Your task to perform on an android device: check battery use Image 0: 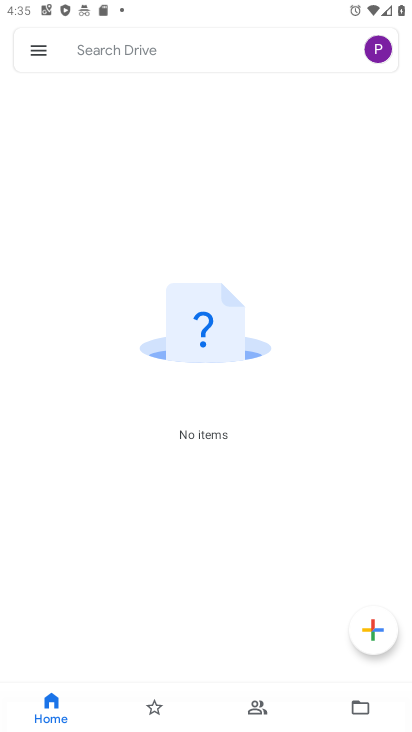
Step 0: press back button
Your task to perform on an android device: check battery use Image 1: 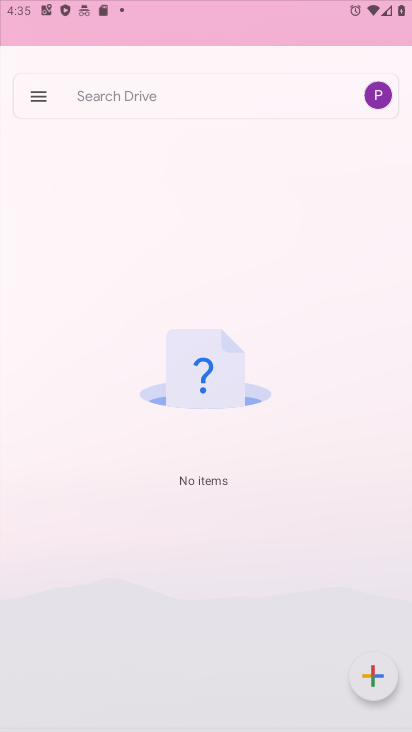
Step 1: press back button
Your task to perform on an android device: check battery use Image 2: 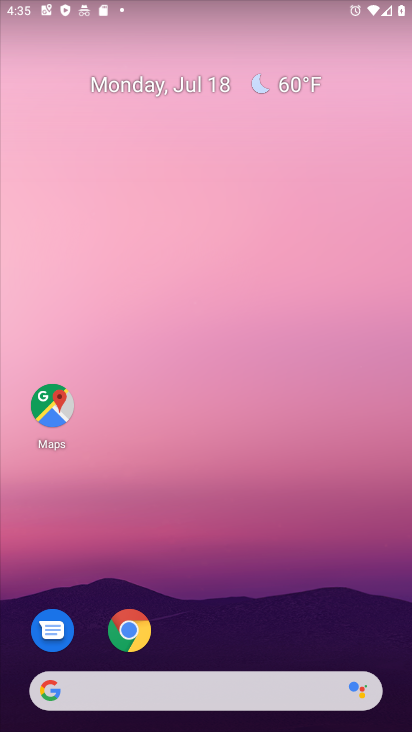
Step 2: drag from (259, 449) to (206, 196)
Your task to perform on an android device: check battery use Image 3: 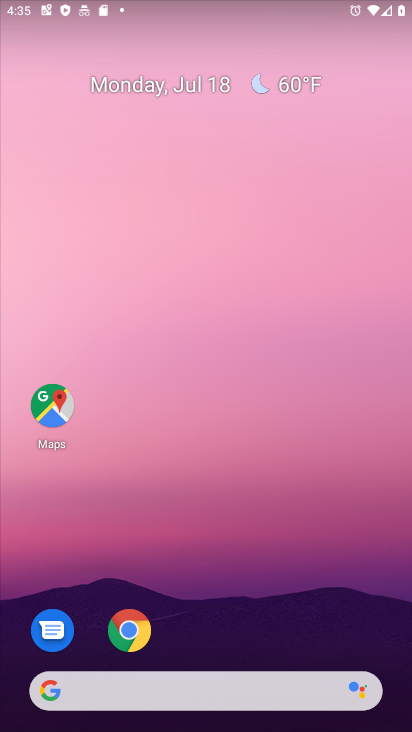
Step 3: drag from (142, 327) to (99, 141)
Your task to perform on an android device: check battery use Image 4: 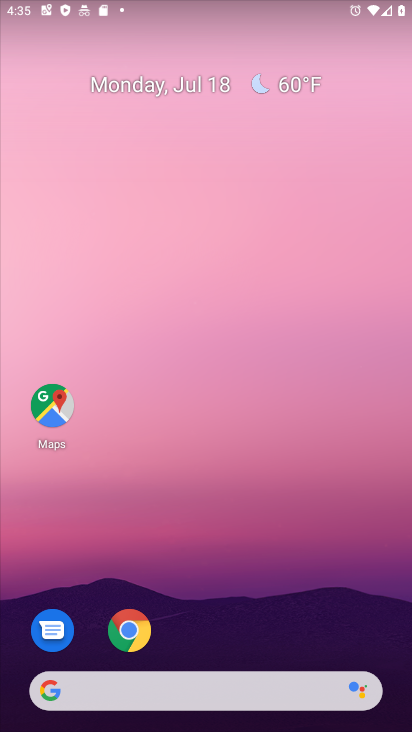
Step 4: drag from (260, 545) to (187, 76)
Your task to perform on an android device: check battery use Image 5: 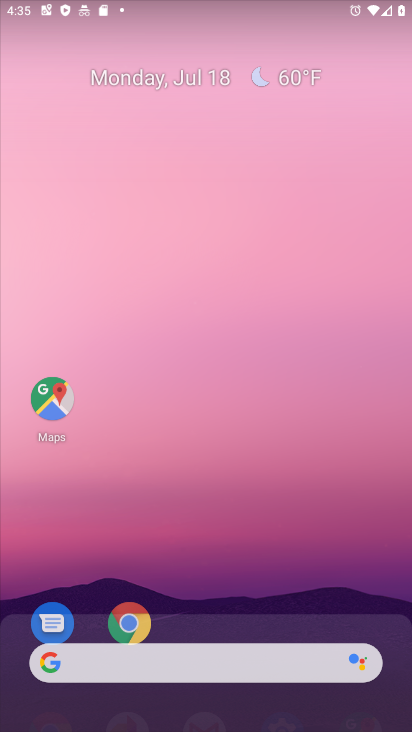
Step 5: click (192, 118)
Your task to perform on an android device: check battery use Image 6: 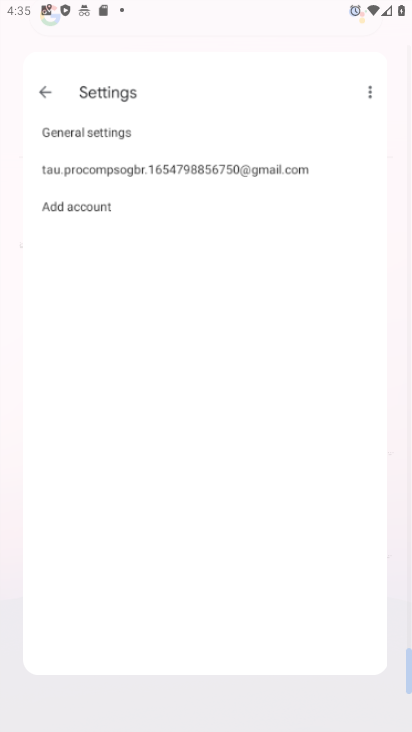
Step 6: drag from (242, 639) to (213, 177)
Your task to perform on an android device: check battery use Image 7: 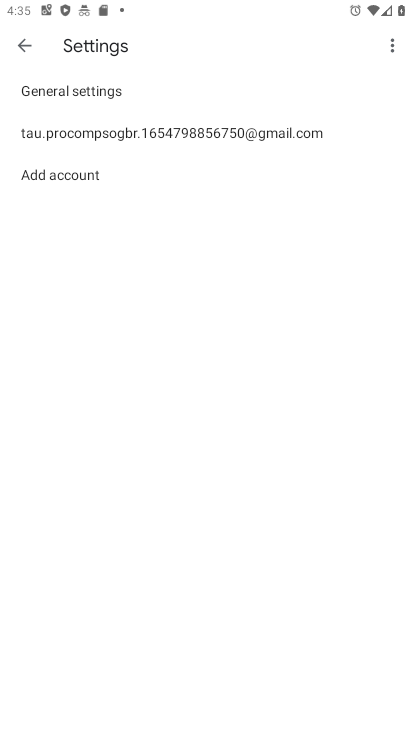
Step 7: click (20, 54)
Your task to perform on an android device: check battery use Image 8: 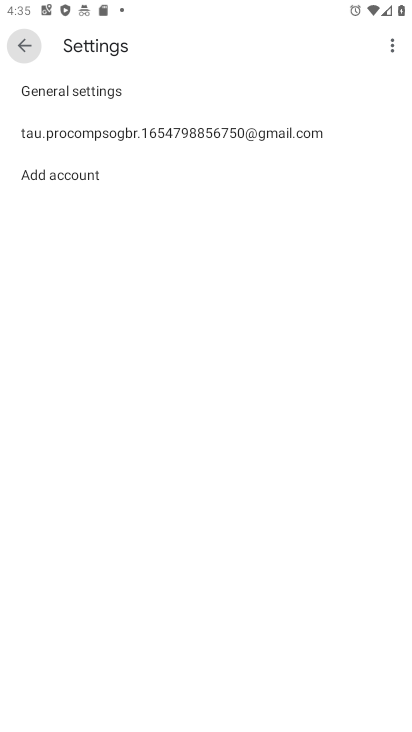
Step 8: click (21, 50)
Your task to perform on an android device: check battery use Image 9: 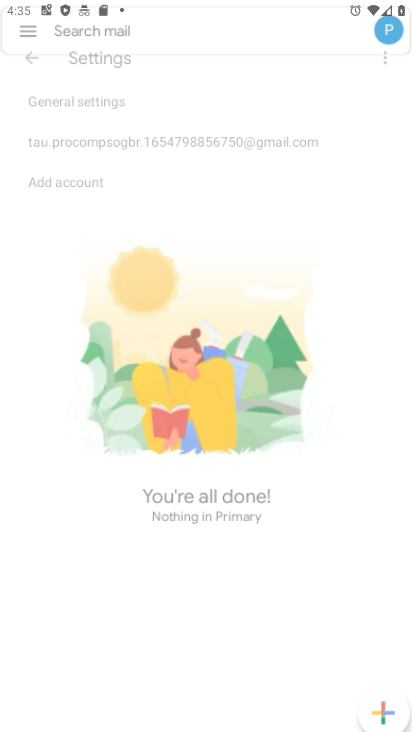
Step 9: click (21, 50)
Your task to perform on an android device: check battery use Image 10: 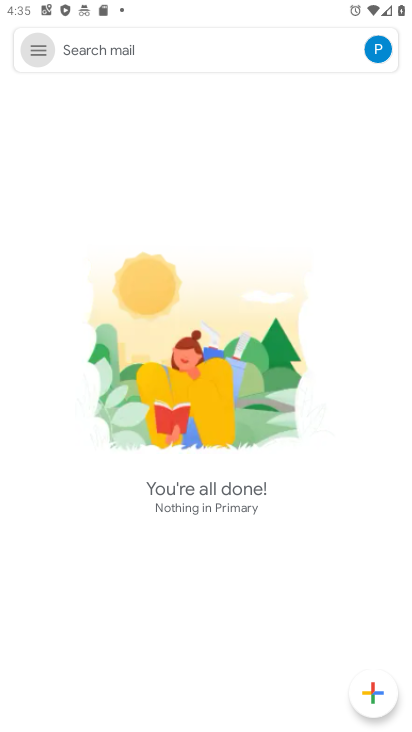
Step 10: click (21, 50)
Your task to perform on an android device: check battery use Image 11: 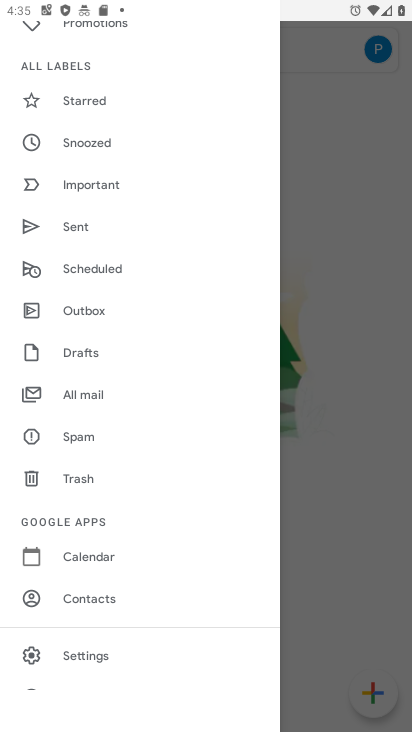
Step 11: press home button
Your task to perform on an android device: check battery use Image 12: 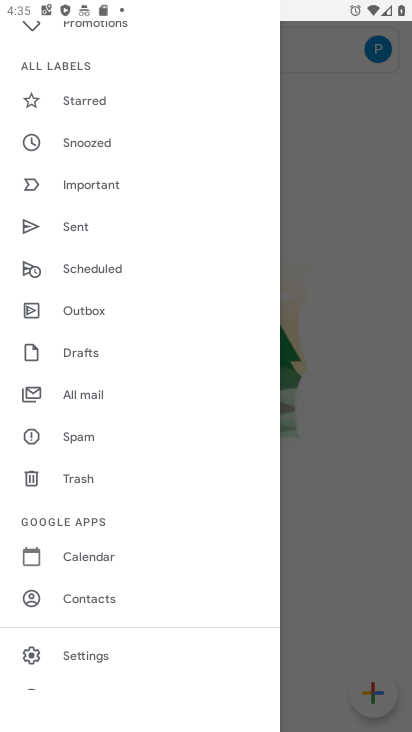
Step 12: press home button
Your task to perform on an android device: check battery use Image 13: 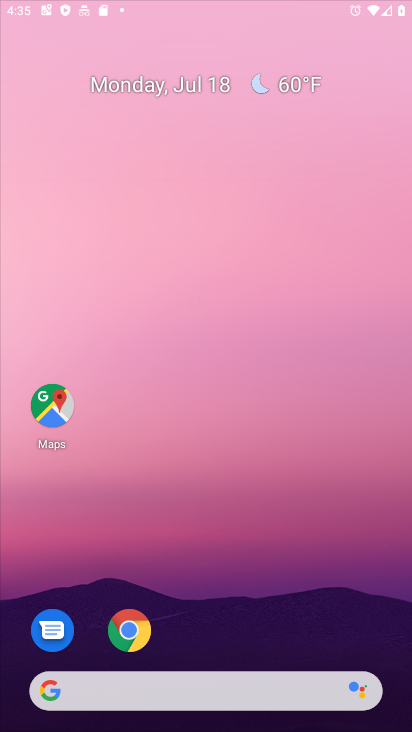
Step 13: press home button
Your task to perform on an android device: check battery use Image 14: 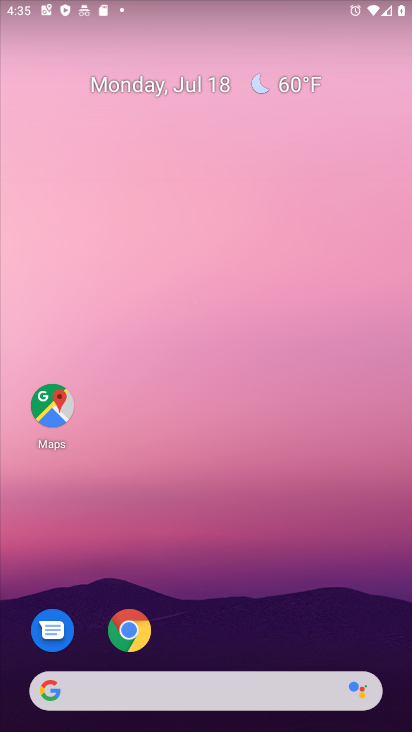
Step 14: drag from (219, 627) to (219, 159)
Your task to perform on an android device: check battery use Image 15: 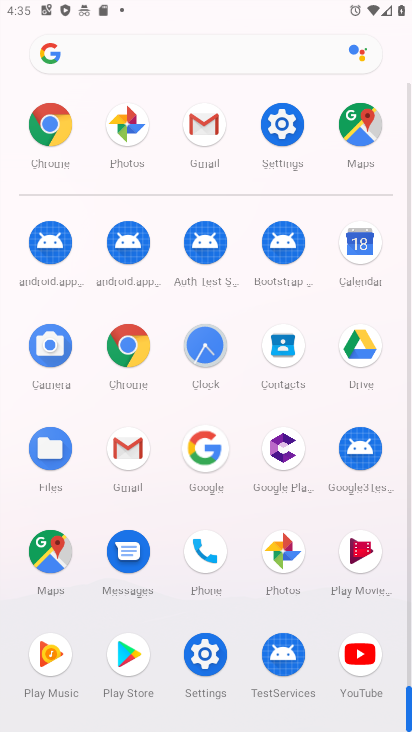
Step 15: click (279, 125)
Your task to perform on an android device: check battery use Image 16: 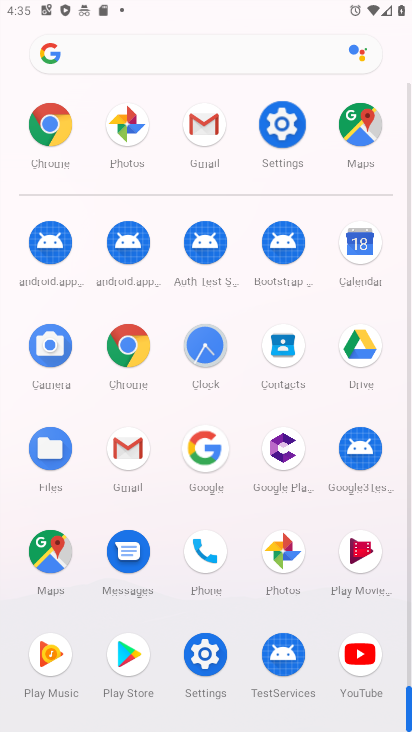
Step 16: click (281, 129)
Your task to perform on an android device: check battery use Image 17: 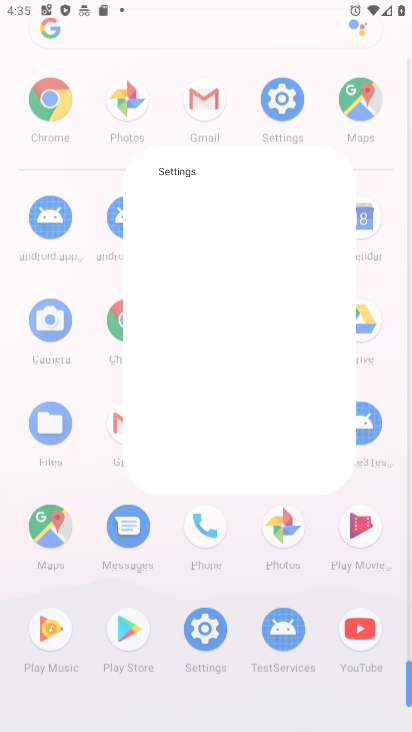
Step 17: click (282, 129)
Your task to perform on an android device: check battery use Image 18: 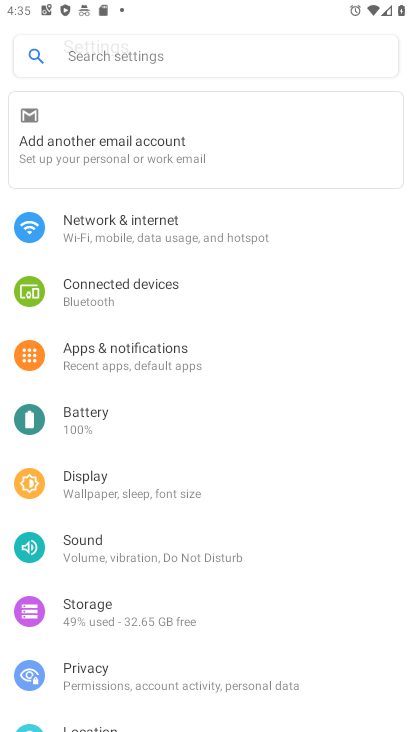
Step 18: click (287, 138)
Your task to perform on an android device: check battery use Image 19: 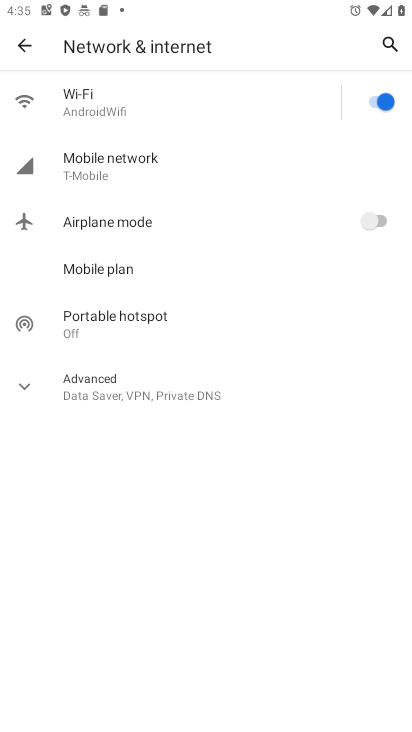
Step 19: click (84, 317)
Your task to perform on an android device: check battery use Image 20: 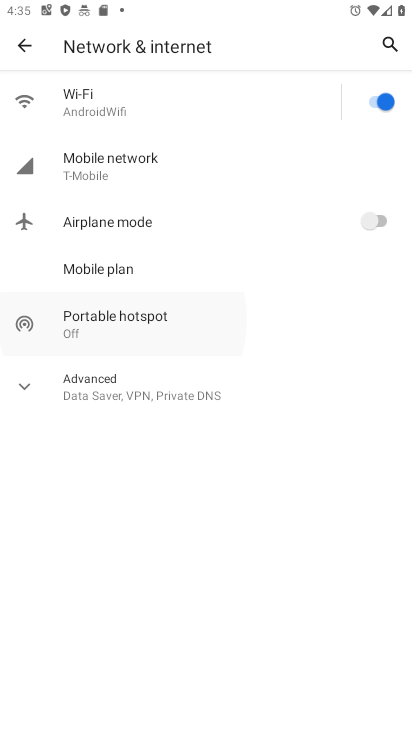
Step 20: click (83, 317)
Your task to perform on an android device: check battery use Image 21: 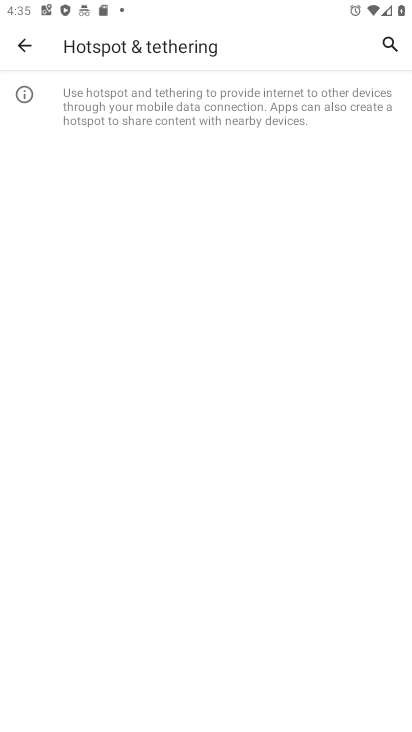
Step 21: click (28, 44)
Your task to perform on an android device: check battery use Image 22: 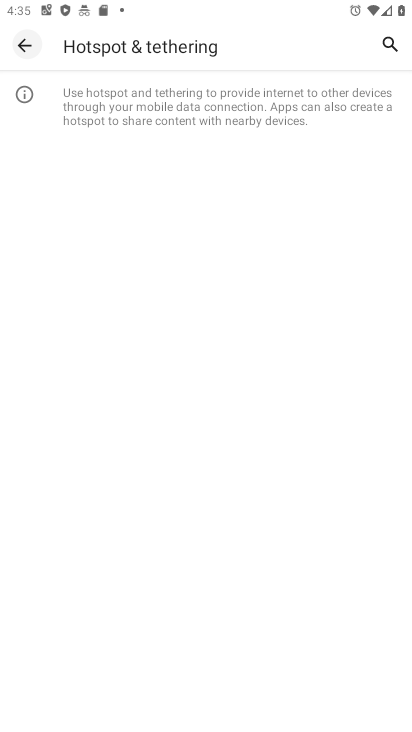
Step 22: click (28, 44)
Your task to perform on an android device: check battery use Image 23: 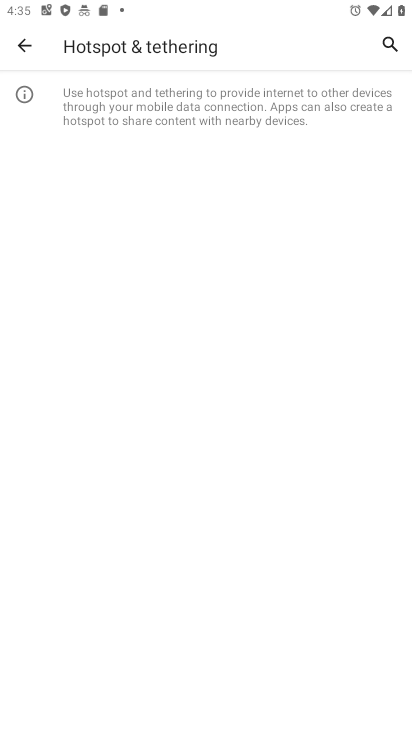
Step 23: click (28, 44)
Your task to perform on an android device: check battery use Image 24: 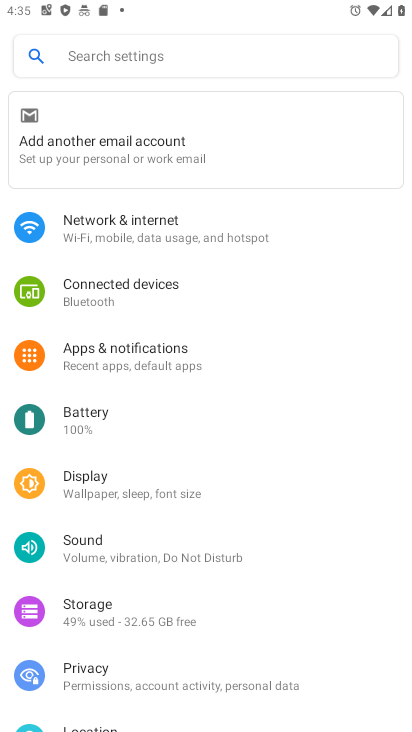
Step 24: click (88, 422)
Your task to perform on an android device: check battery use Image 25: 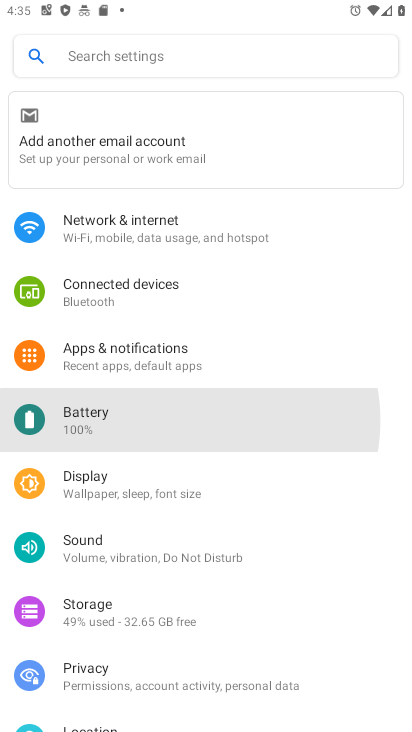
Step 25: click (88, 422)
Your task to perform on an android device: check battery use Image 26: 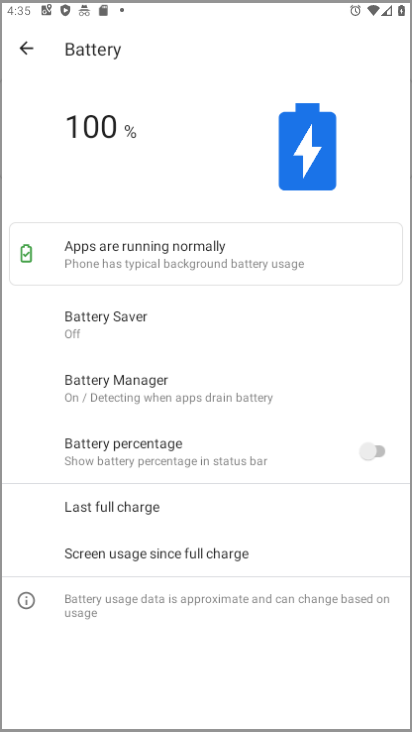
Step 26: click (90, 425)
Your task to perform on an android device: check battery use Image 27: 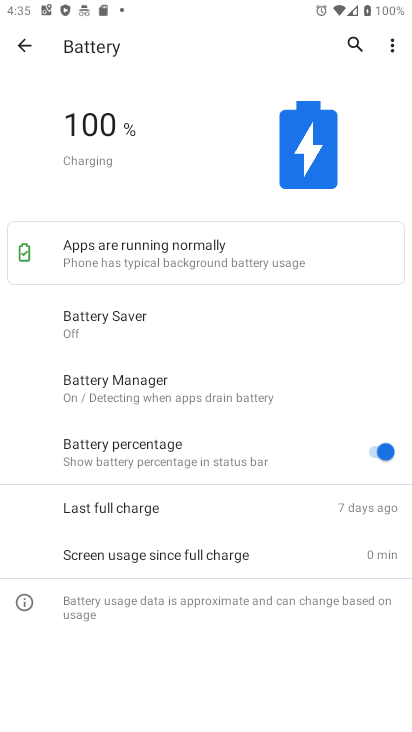
Step 27: task complete